Your task to perform on an android device: turn on translation in the chrome app Image 0: 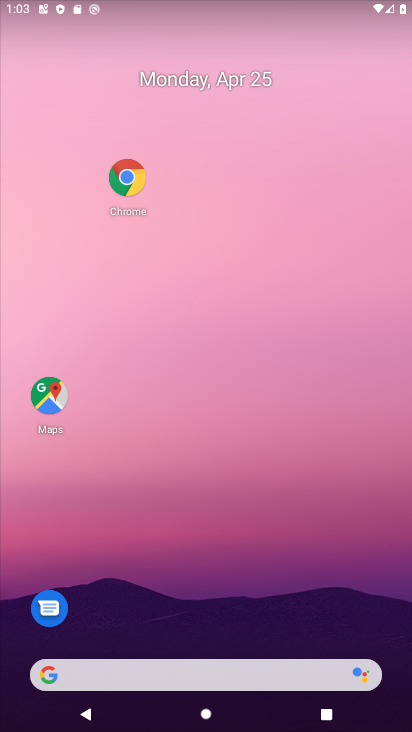
Step 0: drag from (255, 464) to (302, 141)
Your task to perform on an android device: turn on translation in the chrome app Image 1: 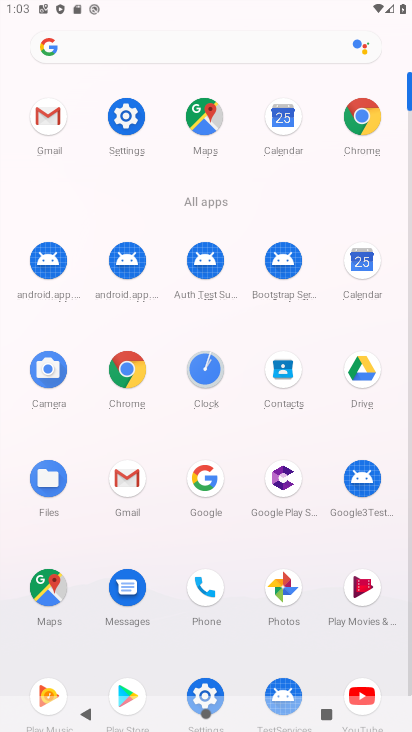
Step 1: click (125, 373)
Your task to perform on an android device: turn on translation in the chrome app Image 2: 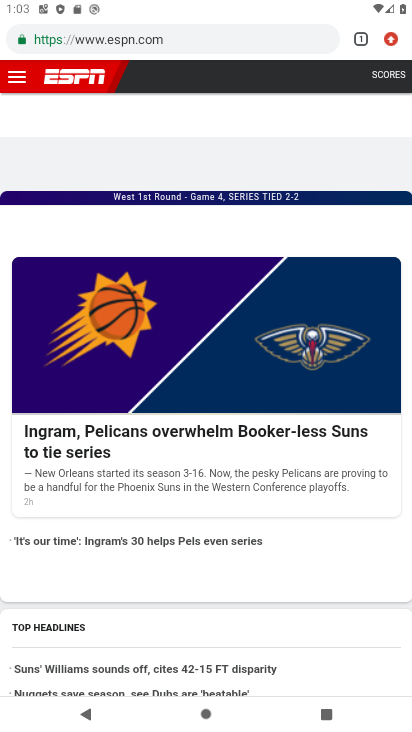
Step 2: drag from (403, 35) to (284, 511)
Your task to perform on an android device: turn on translation in the chrome app Image 3: 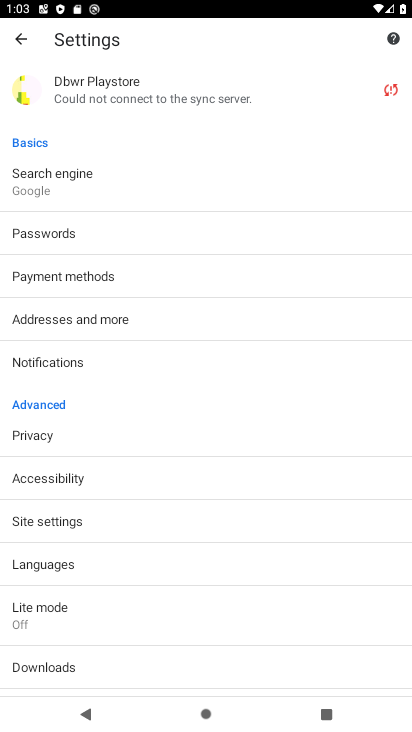
Step 3: click (52, 570)
Your task to perform on an android device: turn on translation in the chrome app Image 4: 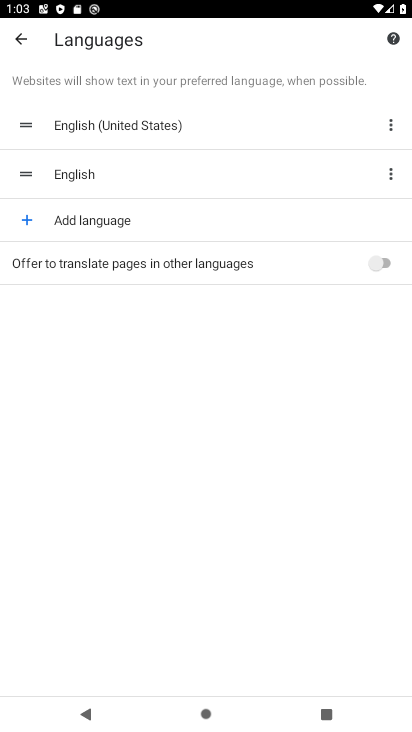
Step 4: click (376, 265)
Your task to perform on an android device: turn on translation in the chrome app Image 5: 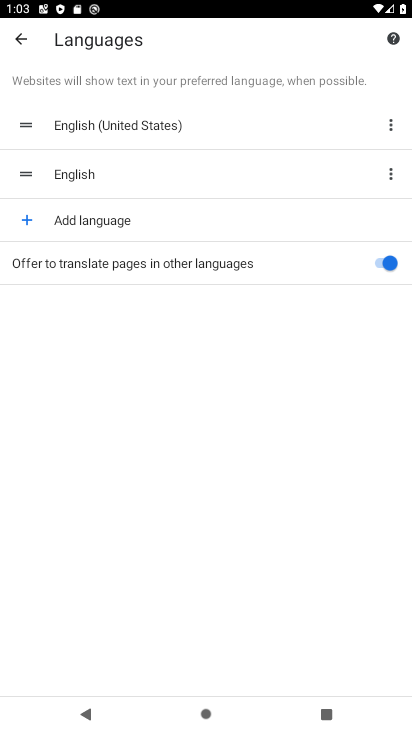
Step 5: task complete